Your task to perform on an android device: open app "Adobe Acrobat Reader: Edit PDF" (install if not already installed) Image 0: 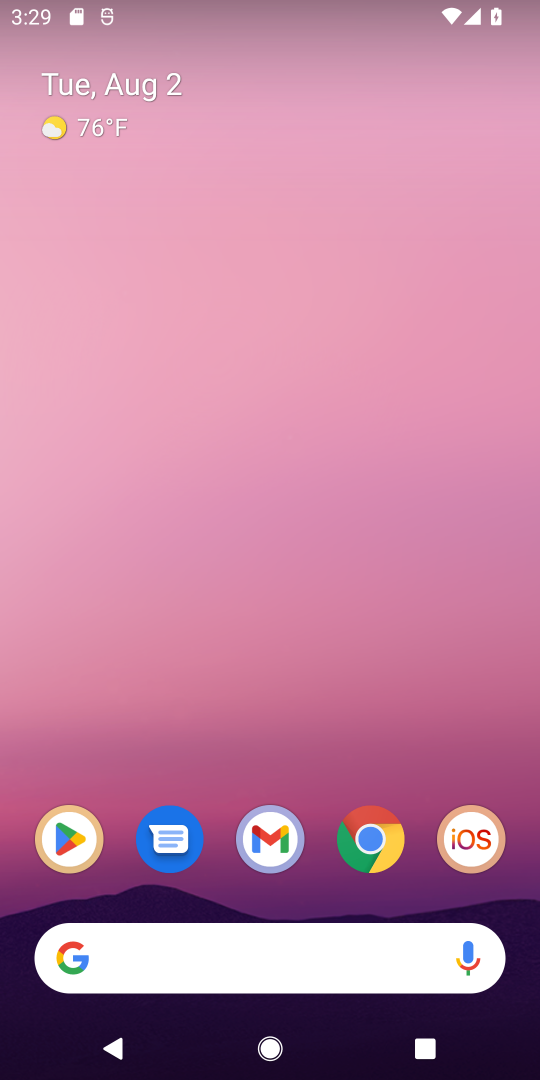
Step 0: drag from (115, 883) to (175, 164)
Your task to perform on an android device: open app "Adobe Acrobat Reader: Edit PDF" (install if not already installed) Image 1: 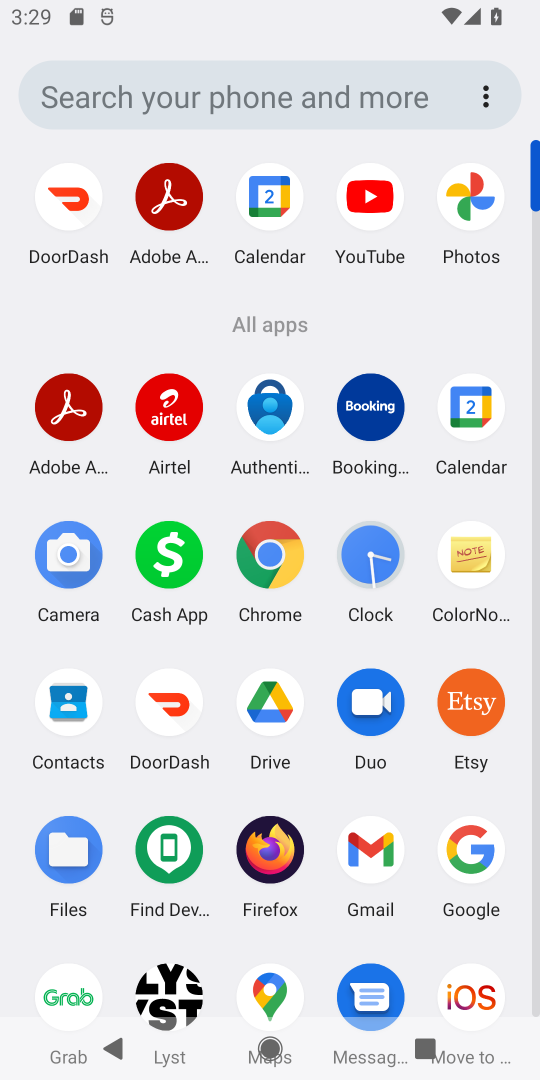
Step 1: click (169, 193)
Your task to perform on an android device: open app "Adobe Acrobat Reader: Edit PDF" (install if not already installed) Image 2: 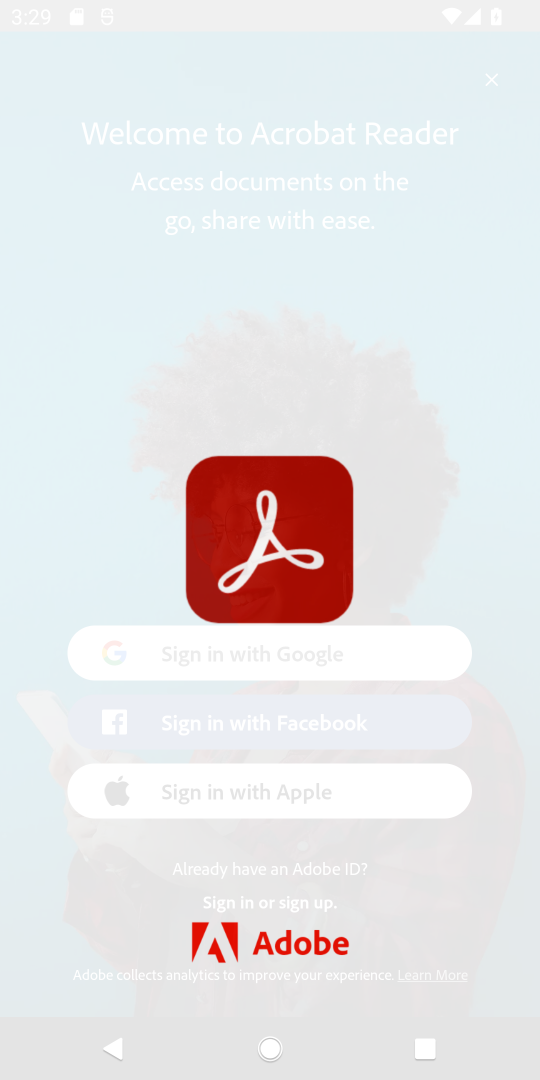
Step 2: task complete